Your task to perform on an android device: add a label to a message in the gmail app Image 0: 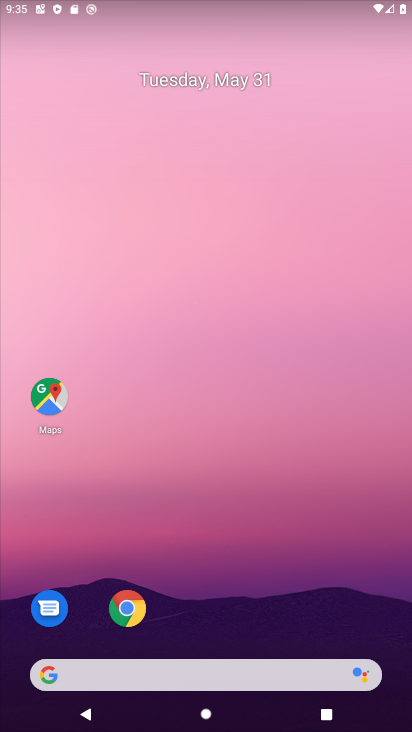
Step 0: click (141, 621)
Your task to perform on an android device: add a label to a message in the gmail app Image 1: 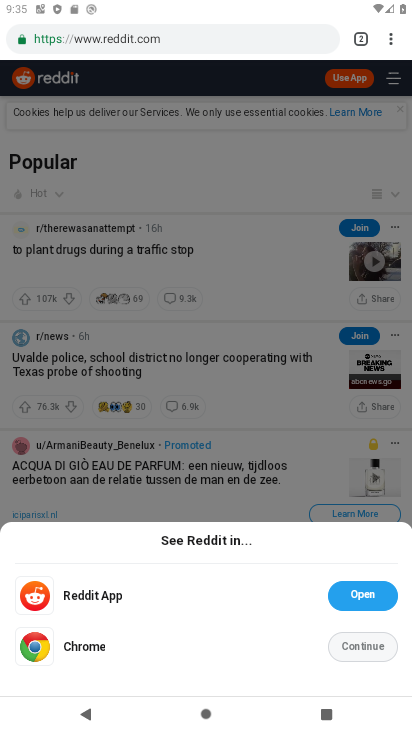
Step 1: task complete